Your task to perform on an android device: turn on improve location accuracy Image 0: 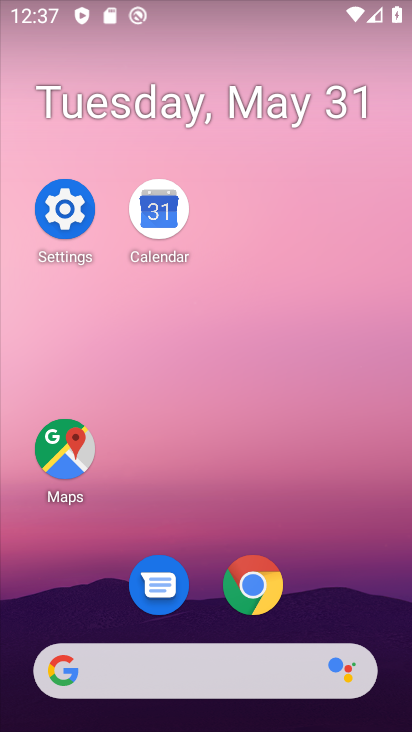
Step 0: click (73, 239)
Your task to perform on an android device: turn on improve location accuracy Image 1: 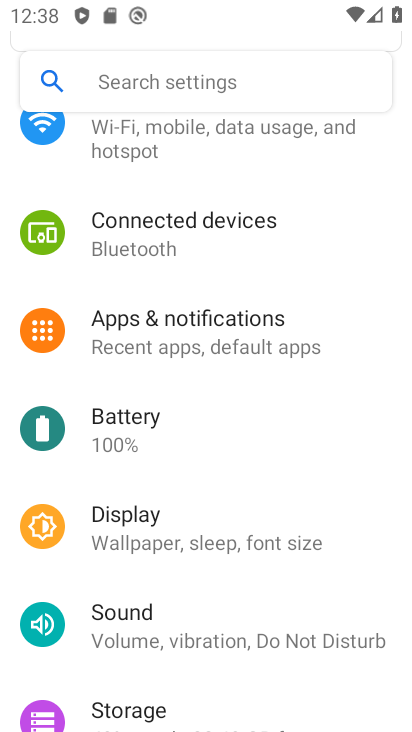
Step 1: drag from (238, 617) to (260, 296)
Your task to perform on an android device: turn on improve location accuracy Image 2: 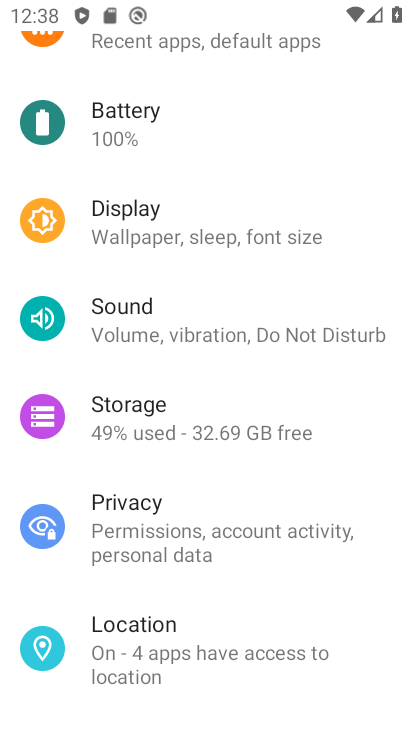
Step 2: click (205, 626)
Your task to perform on an android device: turn on improve location accuracy Image 3: 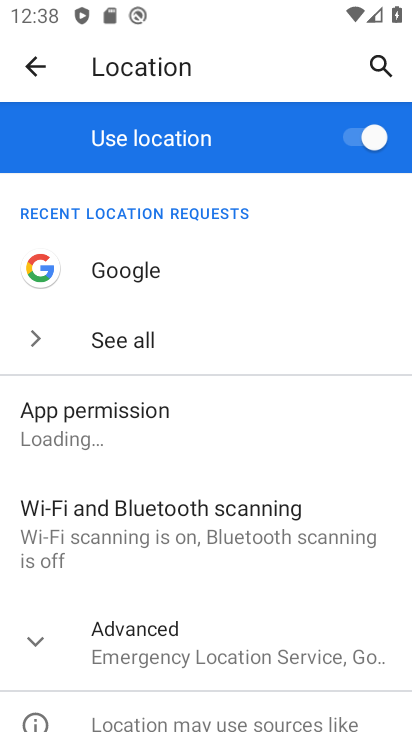
Step 3: click (205, 626)
Your task to perform on an android device: turn on improve location accuracy Image 4: 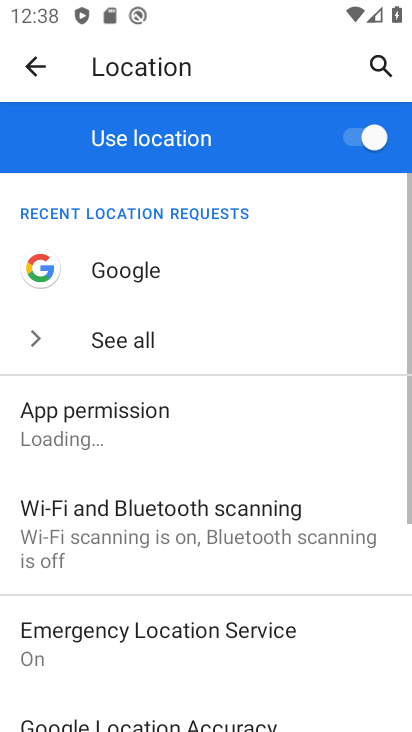
Step 4: drag from (203, 626) to (180, 337)
Your task to perform on an android device: turn on improve location accuracy Image 5: 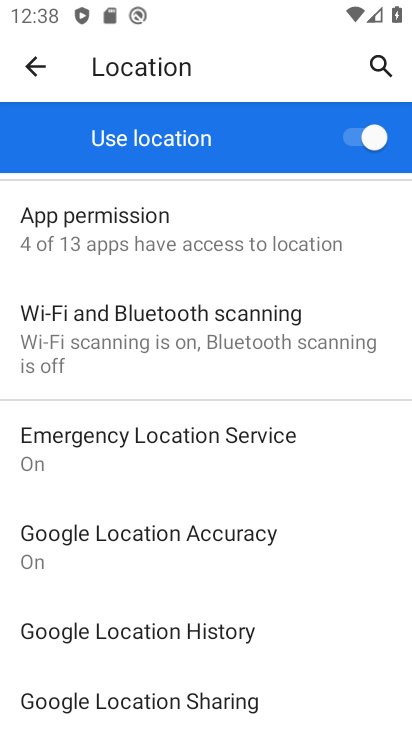
Step 5: click (261, 550)
Your task to perform on an android device: turn on improve location accuracy Image 6: 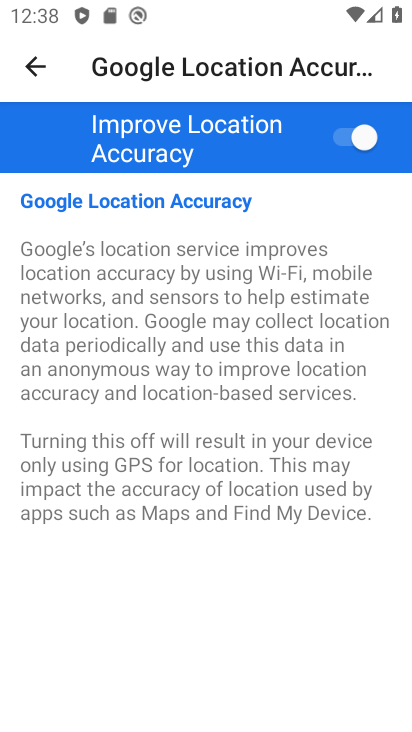
Step 6: task complete